Your task to perform on an android device: move an email to a new category in the gmail app Image 0: 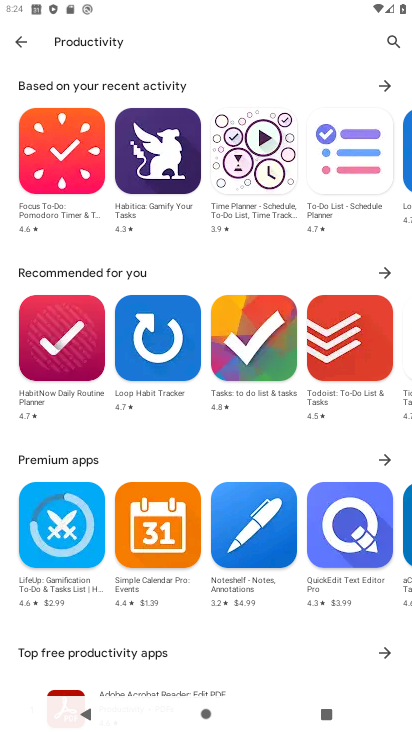
Step 0: press home button
Your task to perform on an android device: move an email to a new category in the gmail app Image 1: 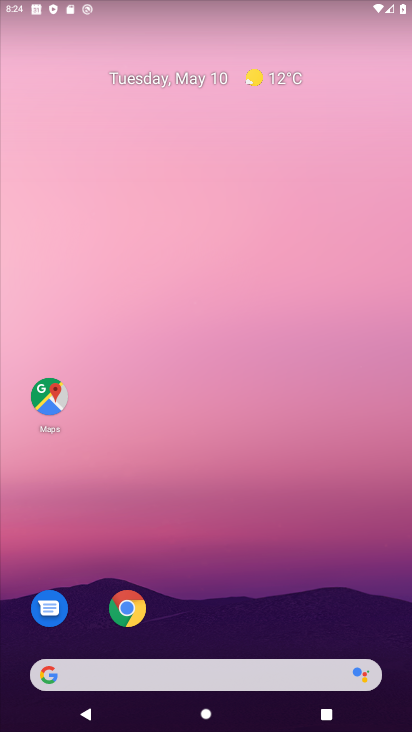
Step 1: drag from (220, 665) to (219, 175)
Your task to perform on an android device: move an email to a new category in the gmail app Image 2: 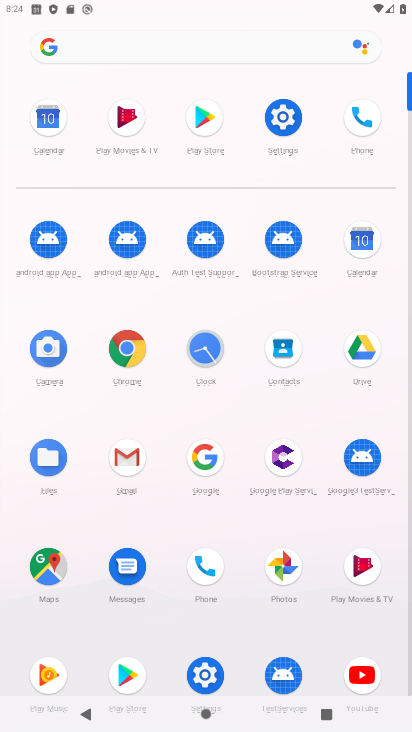
Step 2: click (128, 462)
Your task to perform on an android device: move an email to a new category in the gmail app Image 3: 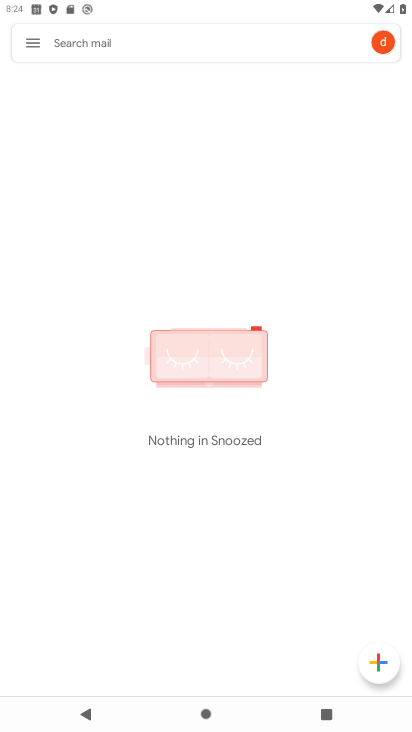
Step 3: click (31, 30)
Your task to perform on an android device: move an email to a new category in the gmail app Image 4: 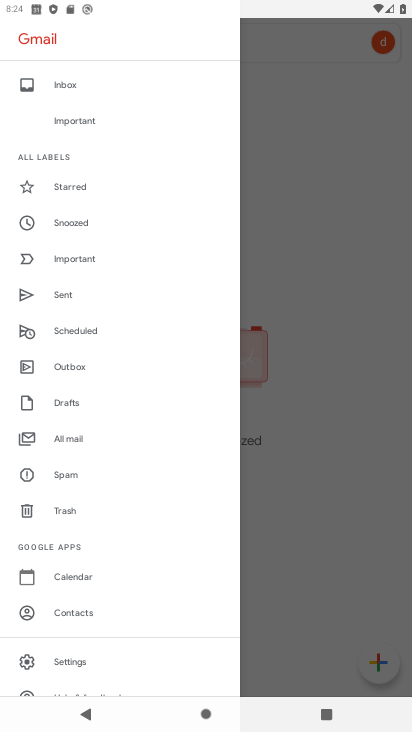
Step 4: click (78, 429)
Your task to perform on an android device: move an email to a new category in the gmail app Image 5: 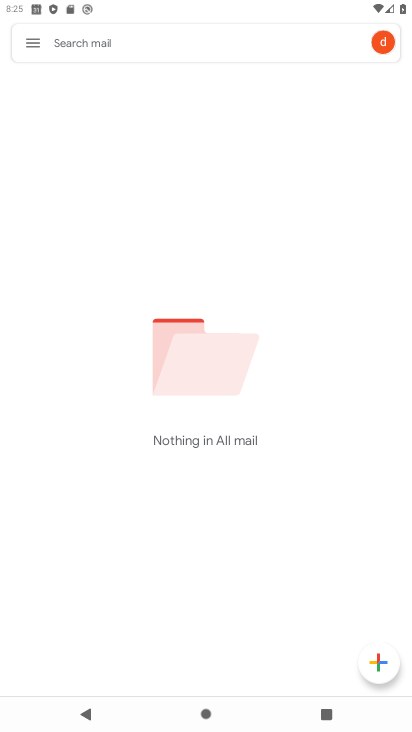
Step 5: task complete